Your task to perform on an android device: change alarm snooze length Image 0: 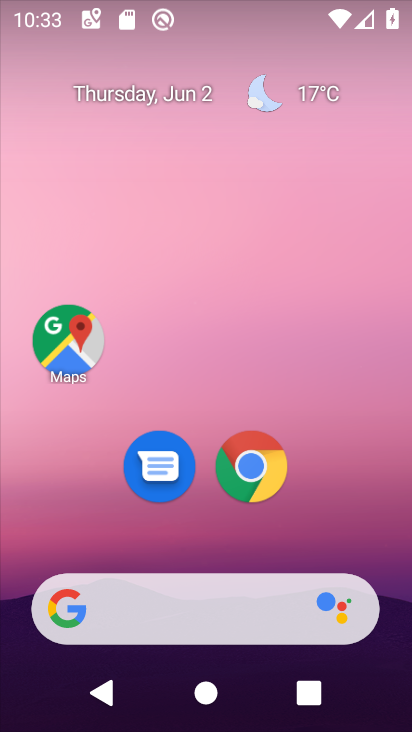
Step 0: drag from (261, 513) to (282, 138)
Your task to perform on an android device: change alarm snooze length Image 1: 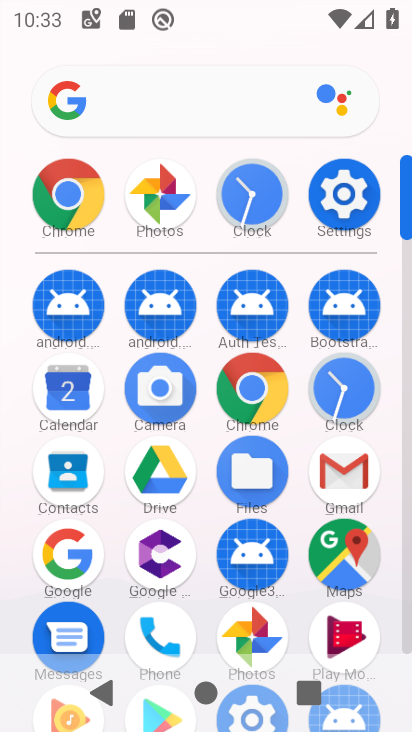
Step 1: click (343, 362)
Your task to perform on an android device: change alarm snooze length Image 2: 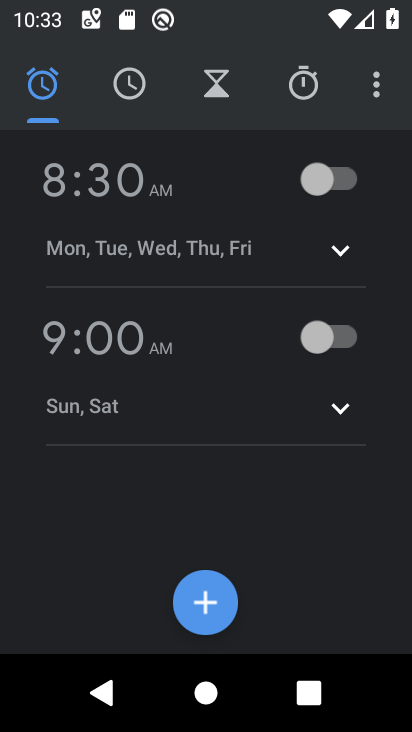
Step 2: click (361, 97)
Your task to perform on an android device: change alarm snooze length Image 3: 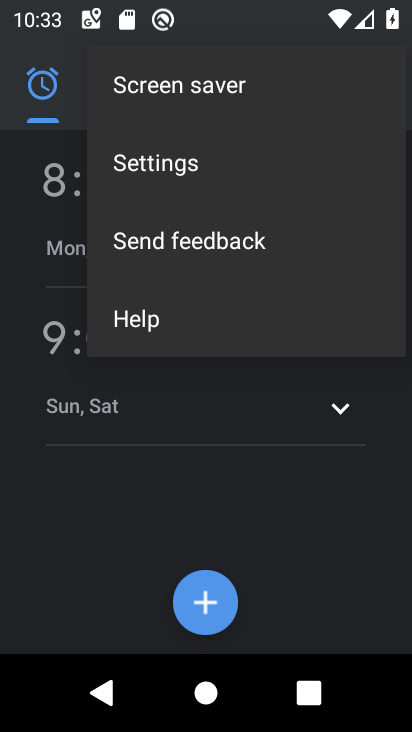
Step 3: click (148, 167)
Your task to perform on an android device: change alarm snooze length Image 4: 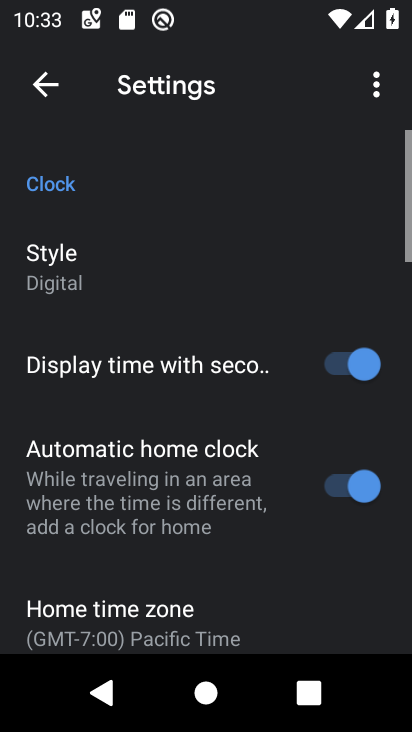
Step 4: drag from (171, 524) to (214, 165)
Your task to perform on an android device: change alarm snooze length Image 5: 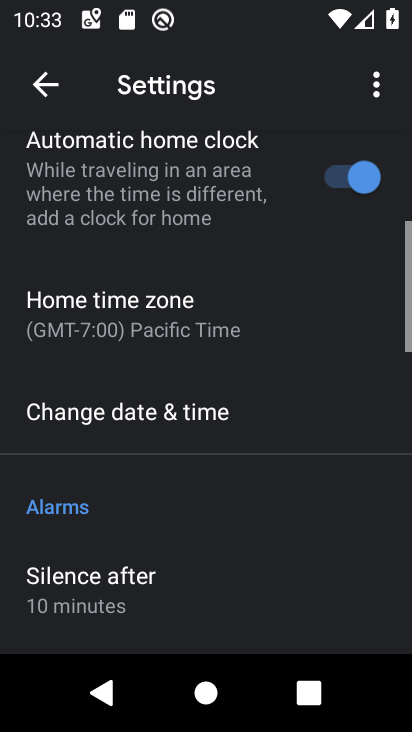
Step 5: drag from (177, 373) to (197, 230)
Your task to perform on an android device: change alarm snooze length Image 6: 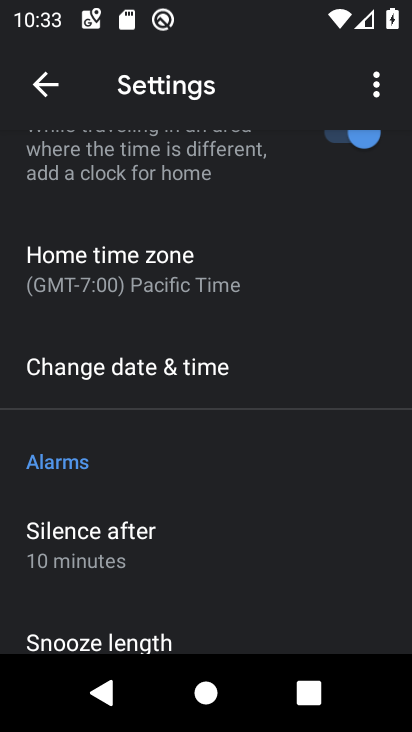
Step 6: drag from (167, 566) to (197, 342)
Your task to perform on an android device: change alarm snooze length Image 7: 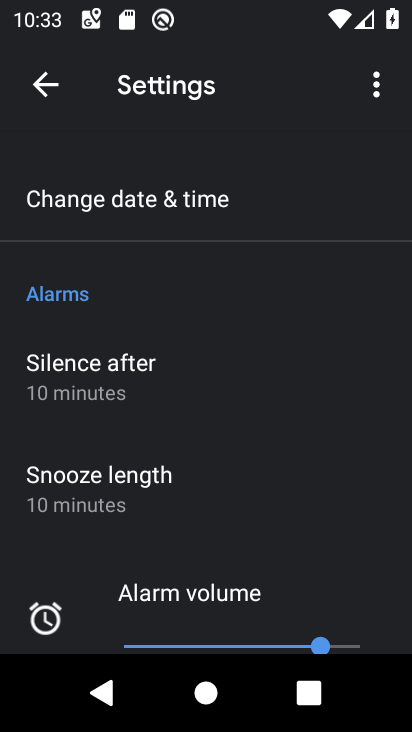
Step 7: click (157, 501)
Your task to perform on an android device: change alarm snooze length Image 8: 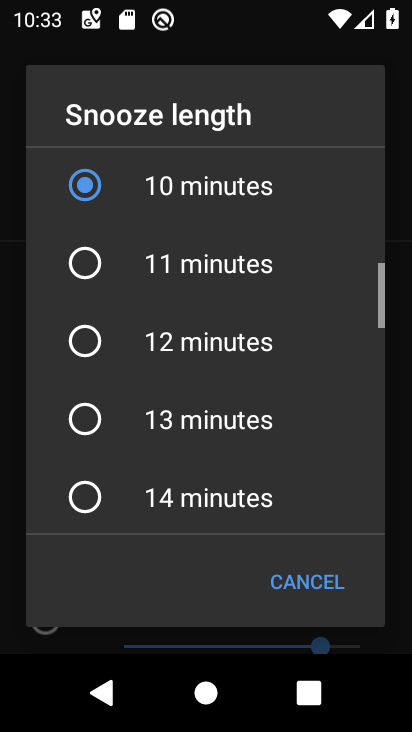
Step 8: click (143, 426)
Your task to perform on an android device: change alarm snooze length Image 9: 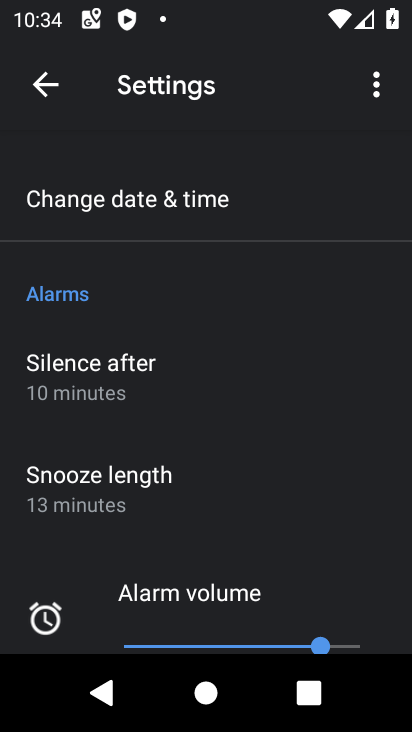
Step 9: task complete